Your task to perform on an android device: Add apple airpods to the cart on costco.com, then select checkout. Image 0: 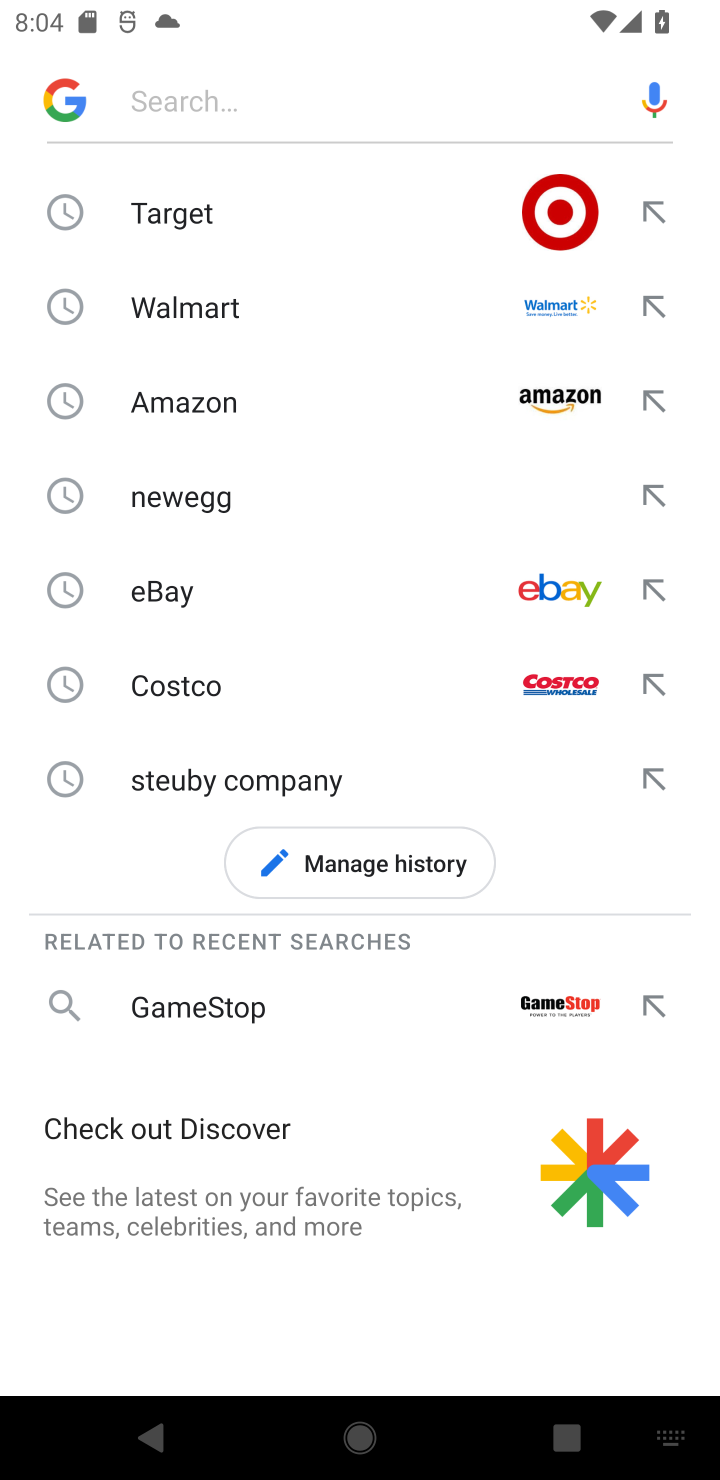
Step 0: type "costco"
Your task to perform on an android device: Add apple airpods to the cart on costco.com, then select checkout. Image 1: 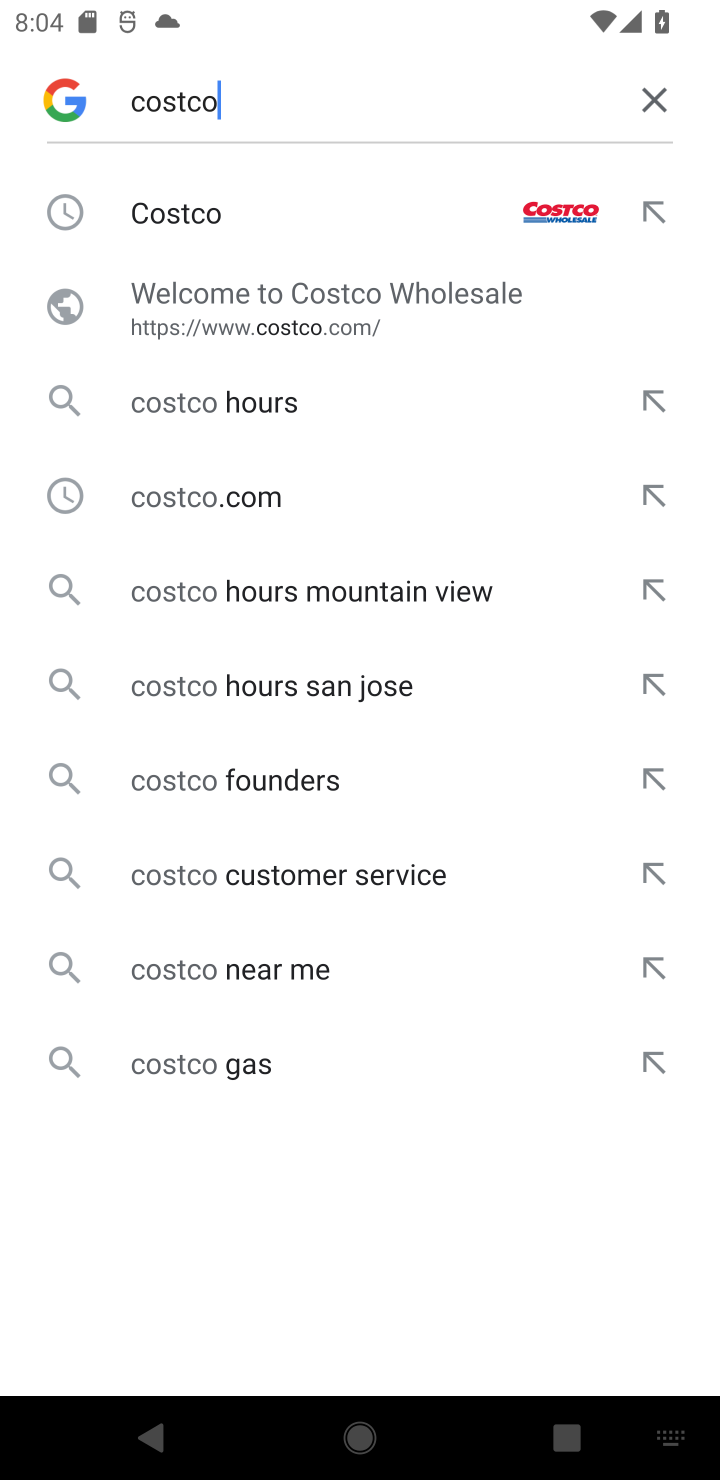
Step 1: click (283, 233)
Your task to perform on an android device: Add apple airpods to the cart on costco.com, then select checkout. Image 2: 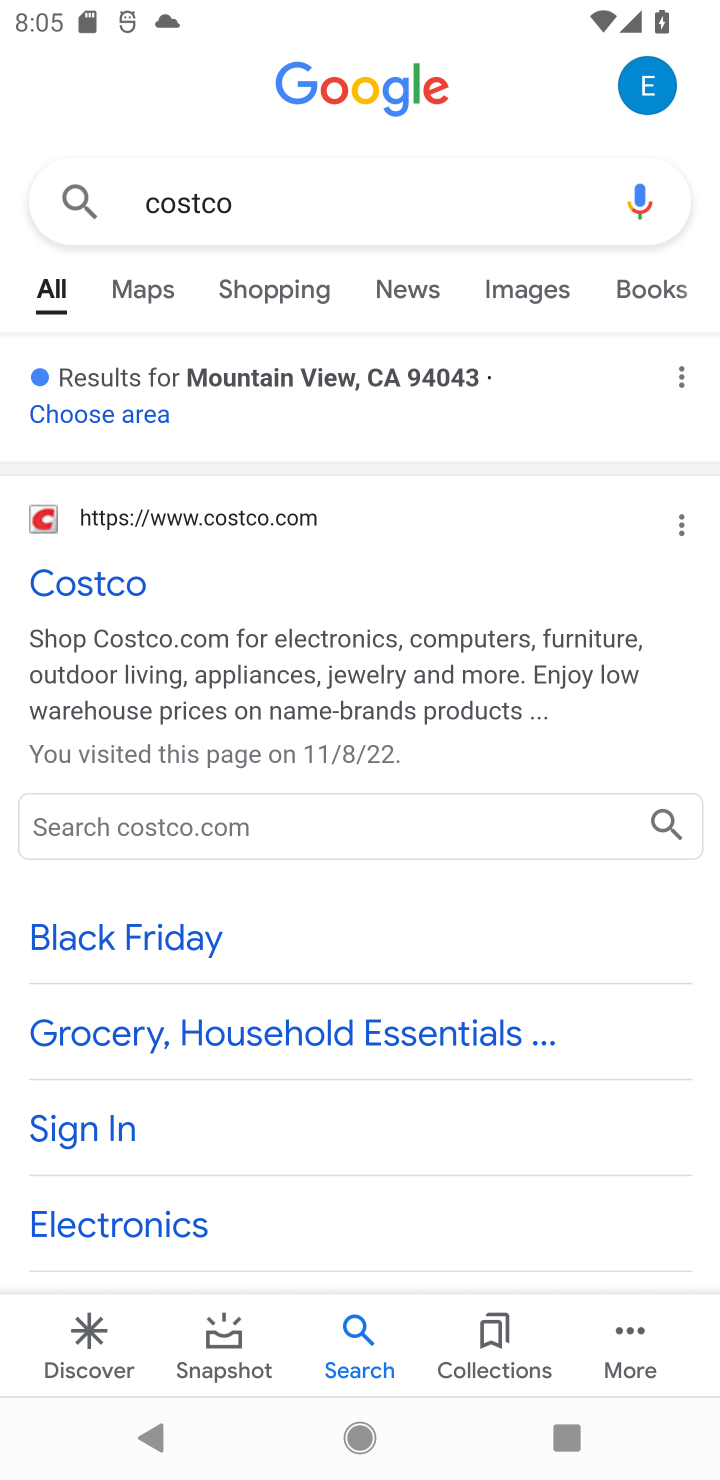
Step 2: click (133, 573)
Your task to perform on an android device: Add apple airpods to the cart on costco.com, then select checkout. Image 3: 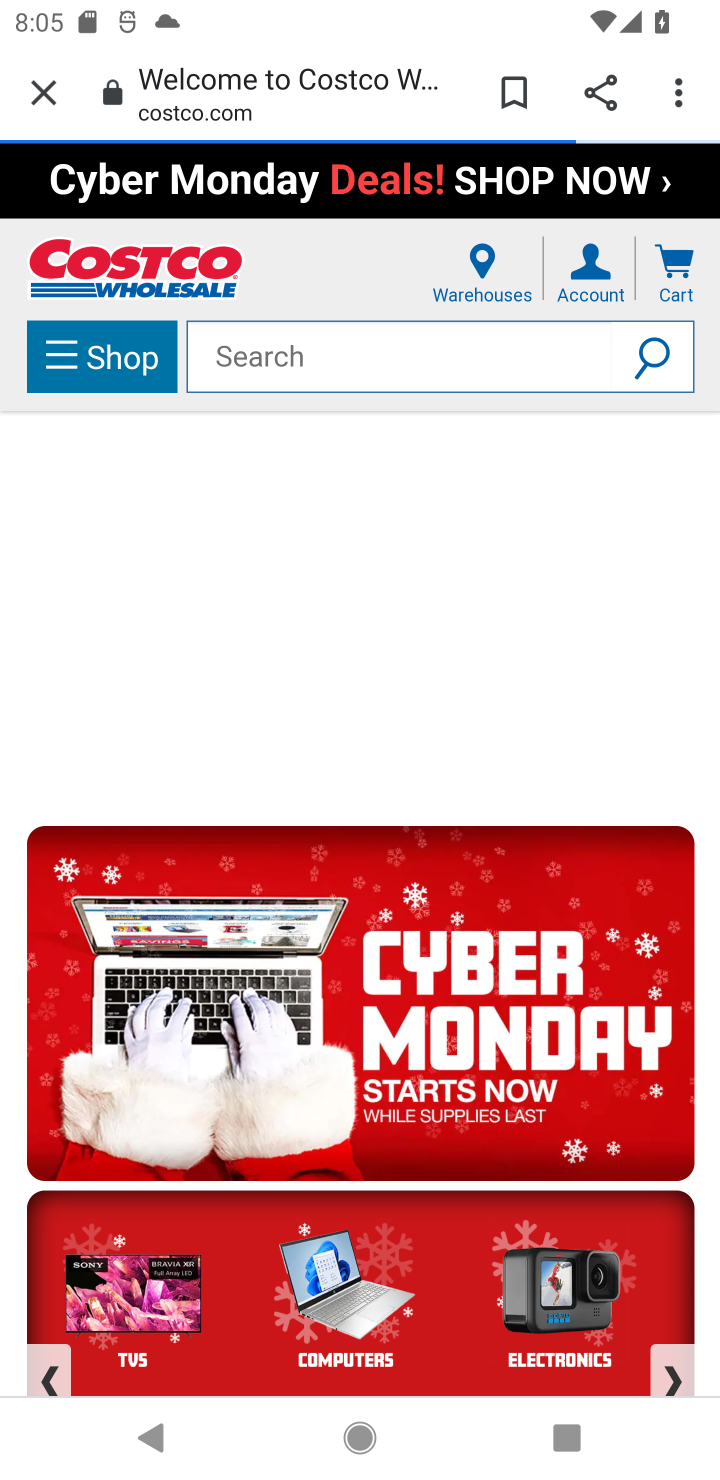
Step 3: click (394, 361)
Your task to perform on an android device: Add apple airpods to the cart on costco.com, then select checkout. Image 4: 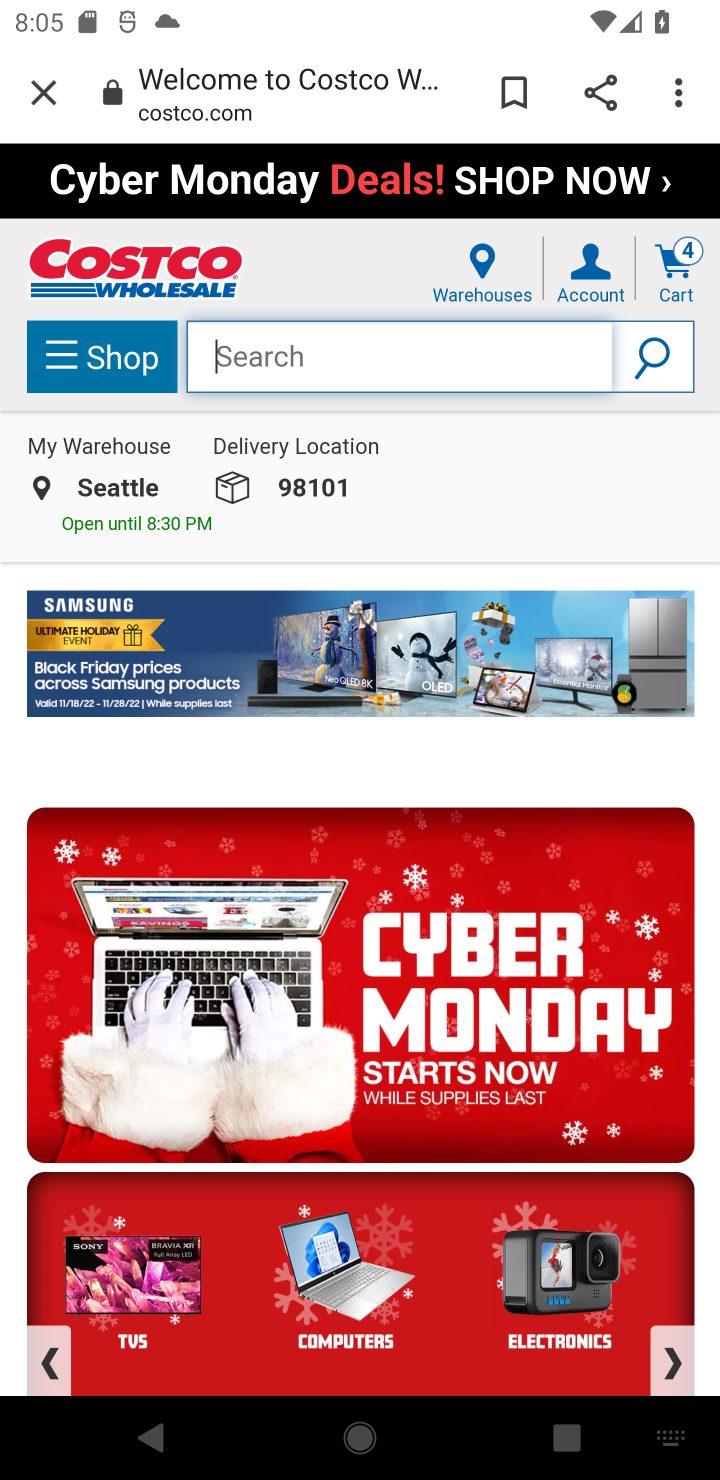
Step 4: type "apple airpod"
Your task to perform on an android device: Add apple airpods to the cart on costco.com, then select checkout. Image 5: 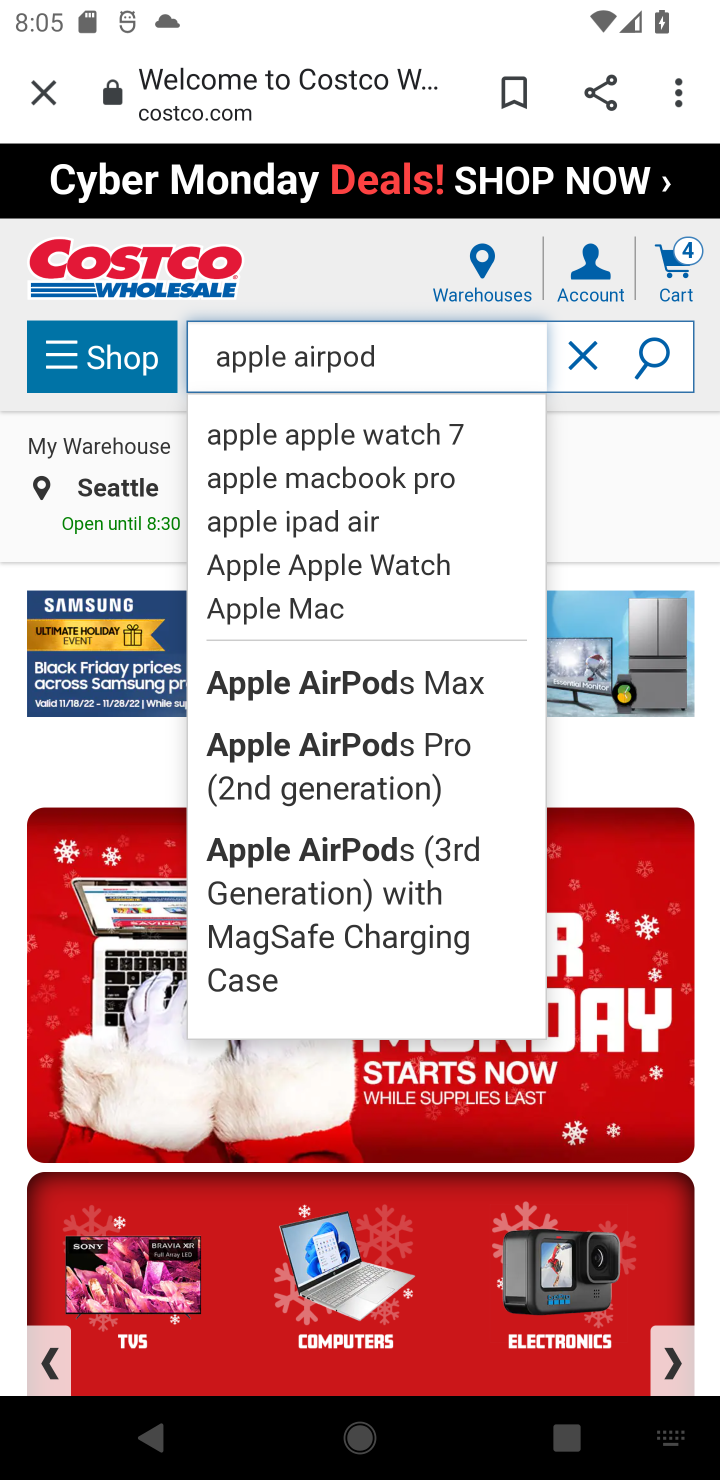
Step 5: click (442, 438)
Your task to perform on an android device: Add apple airpods to the cart on costco.com, then select checkout. Image 6: 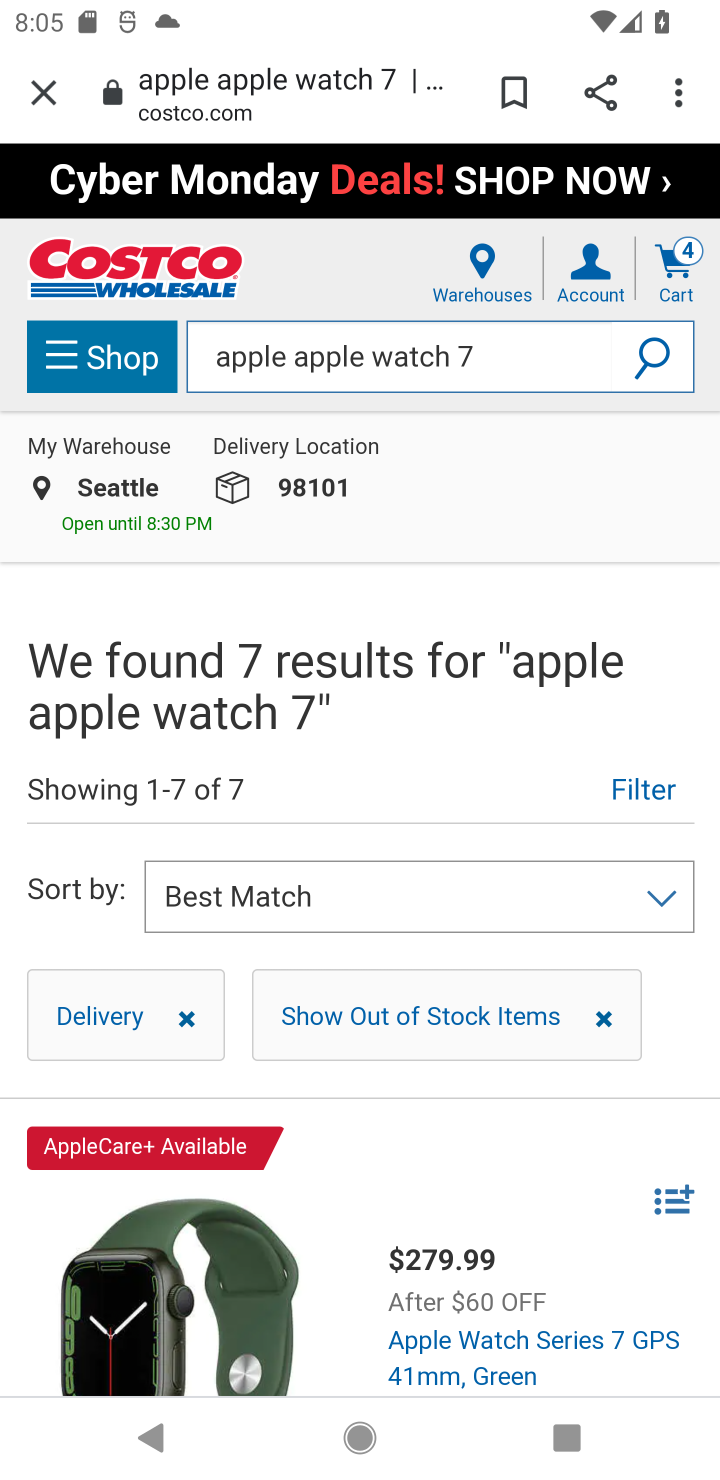
Step 6: drag from (478, 1208) to (518, 487)
Your task to perform on an android device: Add apple airpods to the cart on costco.com, then select checkout. Image 7: 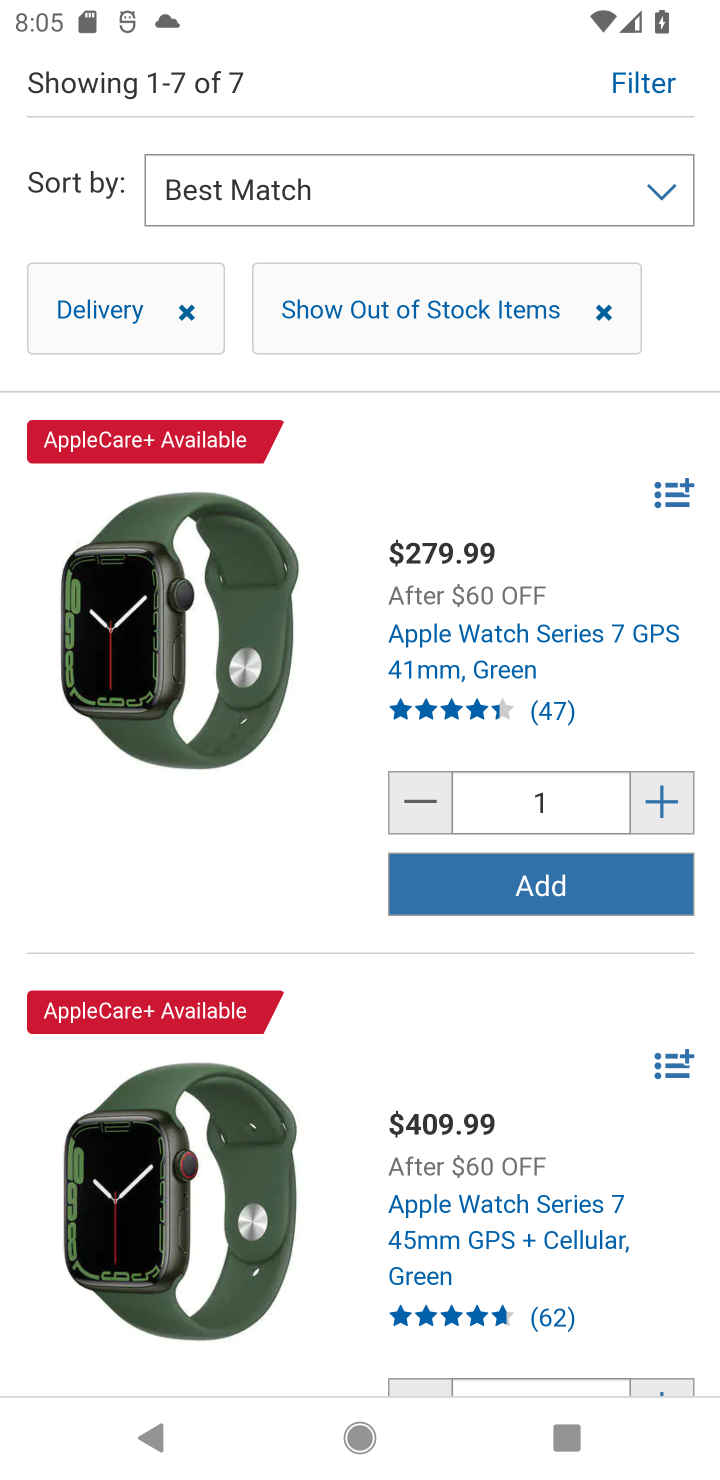
Step 7: click (554, 882)
Your task to perform on an android device: Add apple airpods to the cart on costco.com, then select checkout. Image 8: 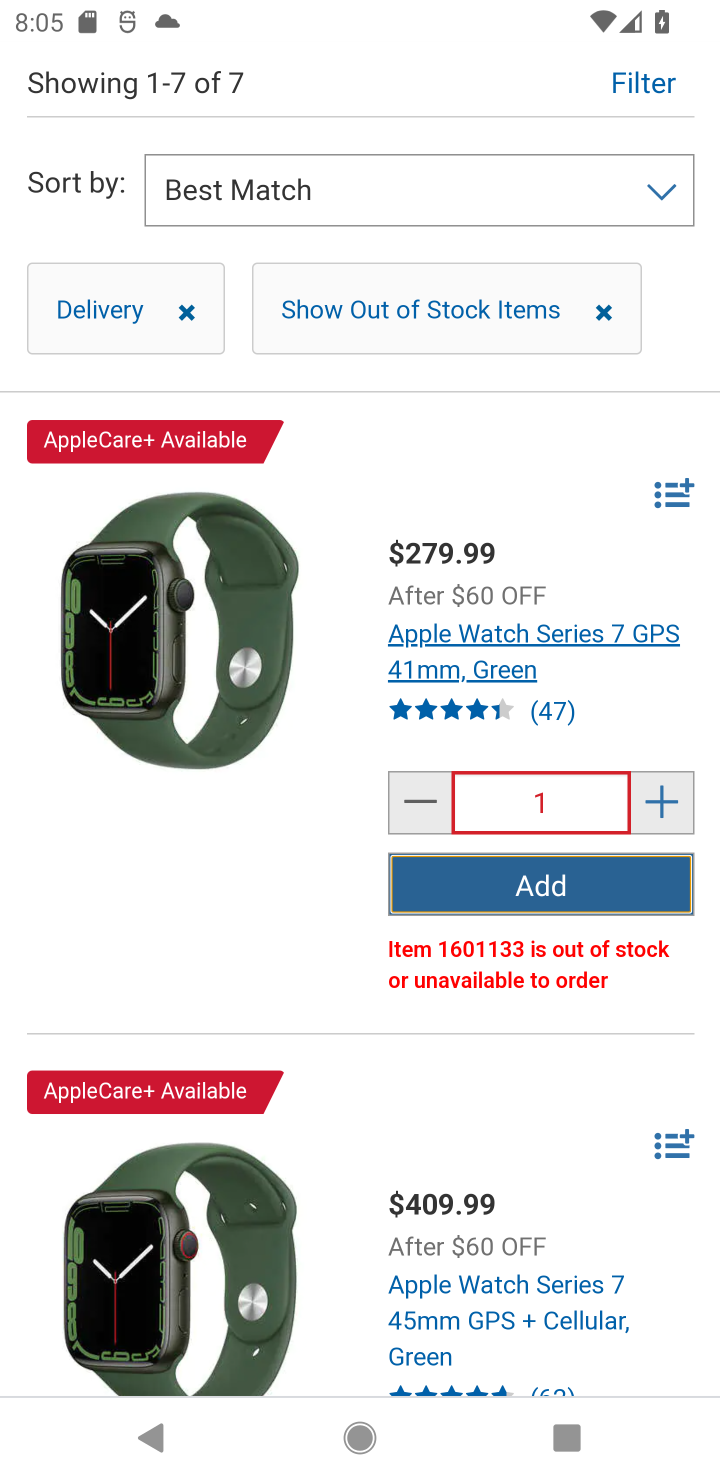
Step 8: task complete